Your task to perform on an android device: Check the weather Image 0: 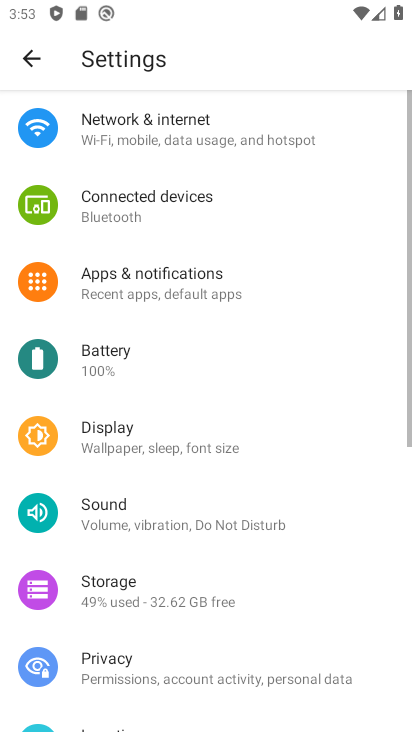
Step 0: press back button
Your task to perform on an android device: Check the weather Image 1: 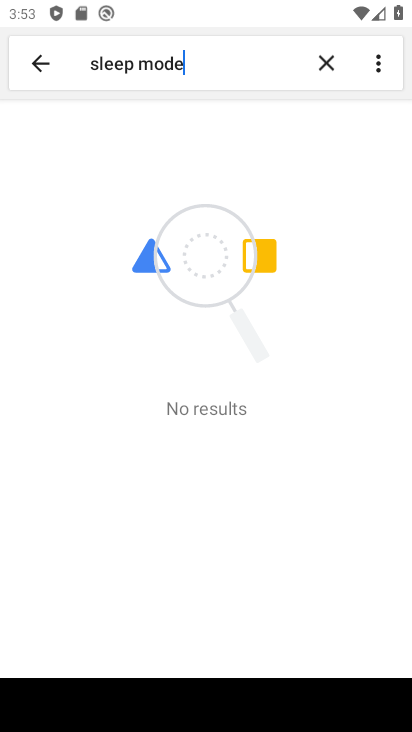
Step 1: press back button
Your task to perform on an android device: Check the weather Image 2: 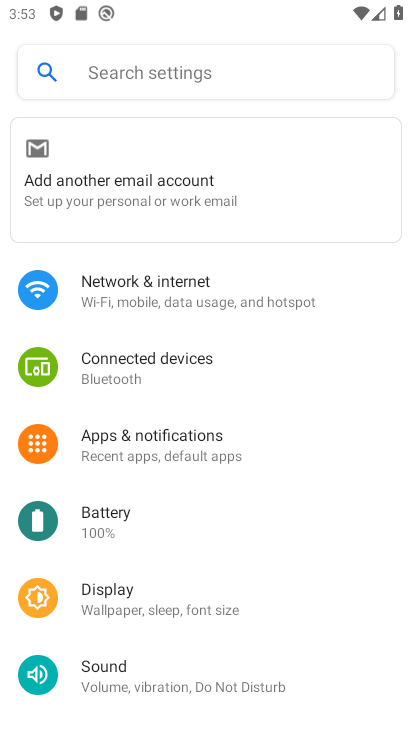
Step 2: press back button
Your task to perform on an android device: Check the weather Image 3: 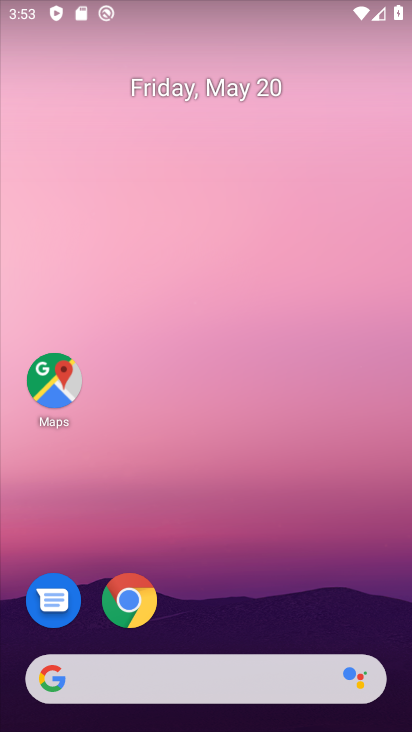
Step 3: click (196, 687)
Your task to perform on an android device: Check the weather Image 4: 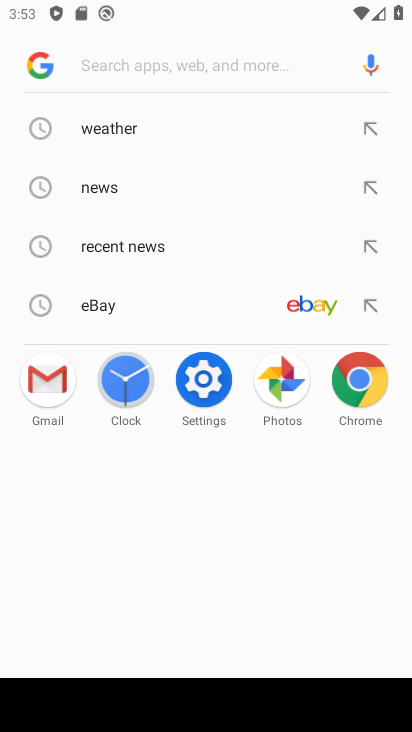
Step 4: click (106, 139)
Your task to perform on an android device: Check the weather Image 5: 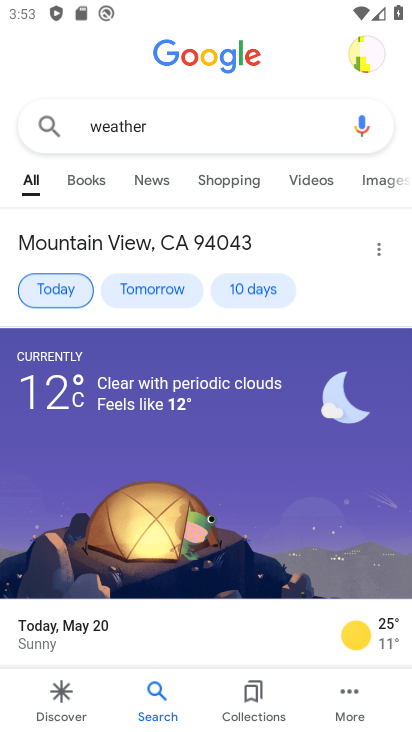
Step 5: task complete